Your task to perform on an android device: Open display settings Image 0: 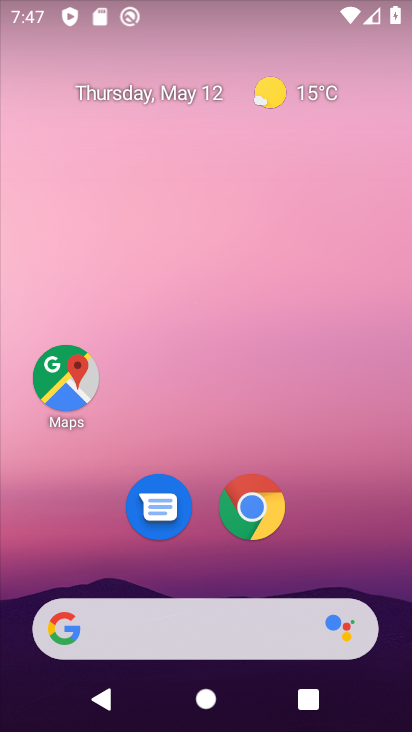
Step 0: drag from (336, 551) to (387, 38)
Your task to perform on an android device: Open display settings Image 1: 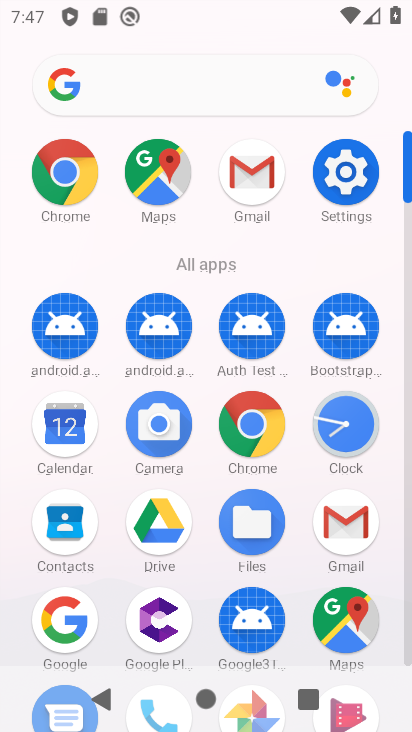
Step 1: click (358, 172)
Your task to perform on an android device: Open display settings Image 2: 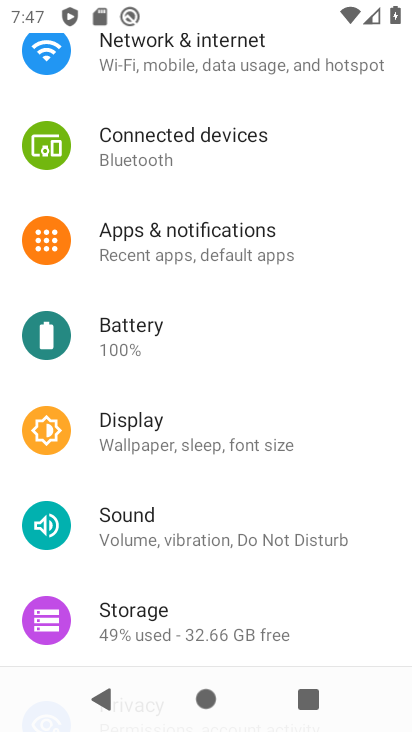
Step 2: click (244, 425)
Your task to perform on an android device: Open display settings Image 3: 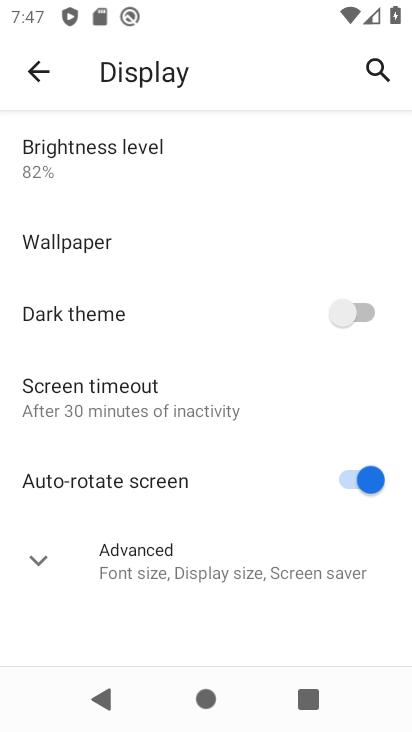
Step 3: task complete